Your task to perform on an android device: Is it going to rain tomorrow? Image 0: 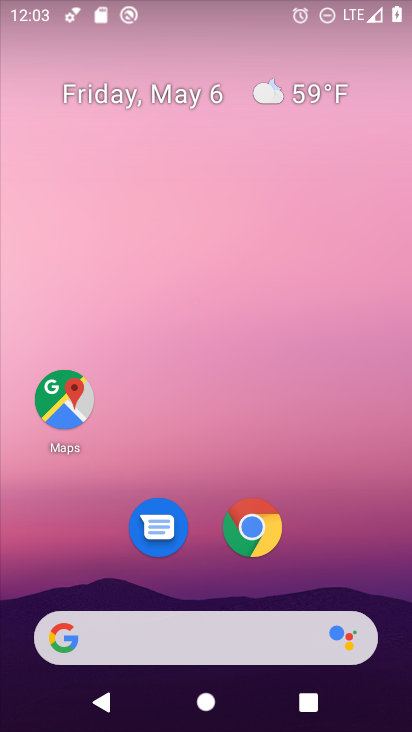
Step 0: click (282, 637)
Your task to perform on an android device: Is it going to rain tomorrow? Image 1: 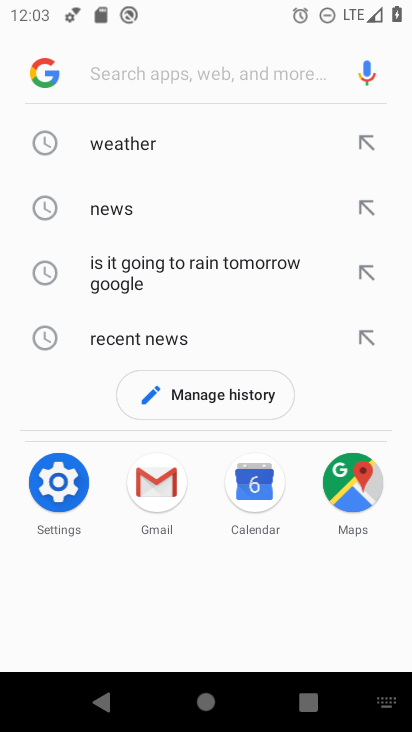
Step 1: type "Is it going to rain tomorrow?"
Your task to perform on an android device: Is it going to rain tomorrow? Image 2: 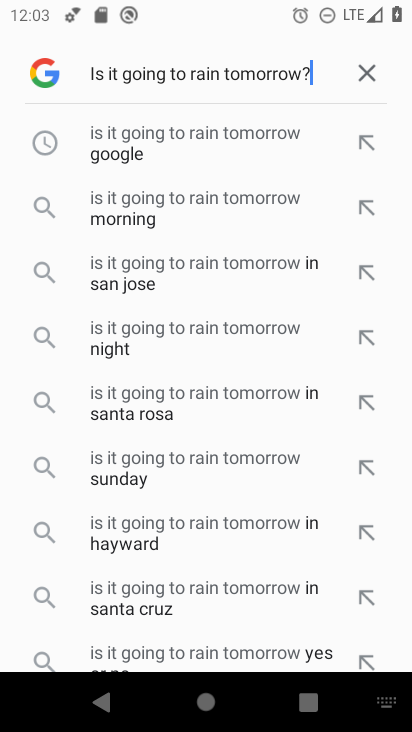
Step 2: click (196, 146)
Your task to perform on an android device: Is it going to rain tomorrow? Image 3: 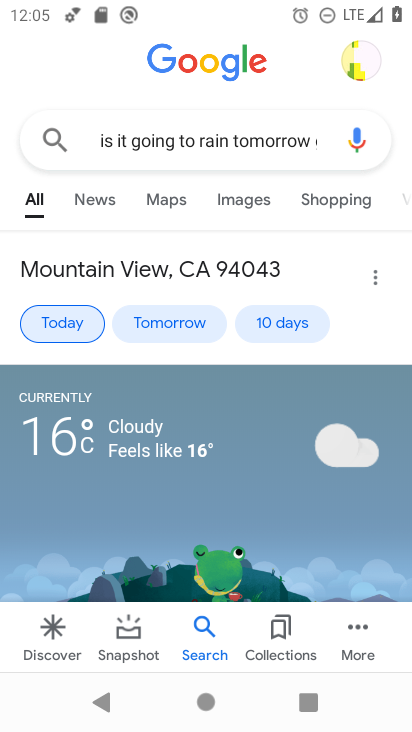
Step 3: task complete